Your task to perform on an android device: Open network settings Image 0: 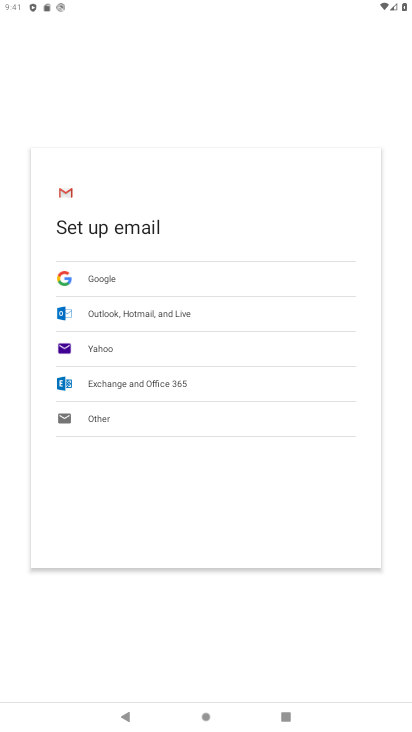
Step 0: press home button
Your task to perform on an android device: Open network settings Image 1: 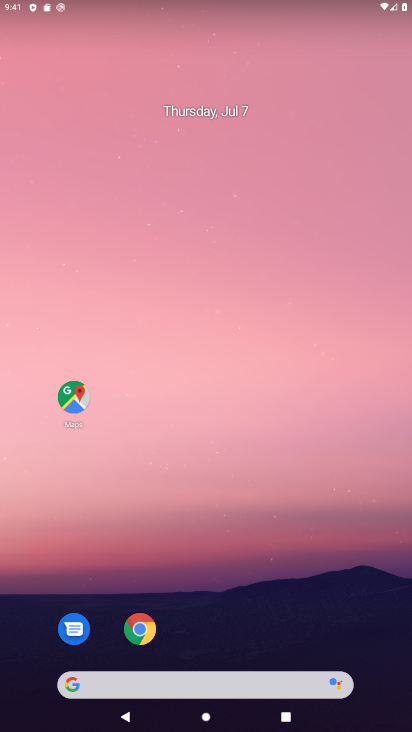
Step 1: drag from (49, 636) to (250, 109)
Your task to perform on an android device: Open network settings Image 2: 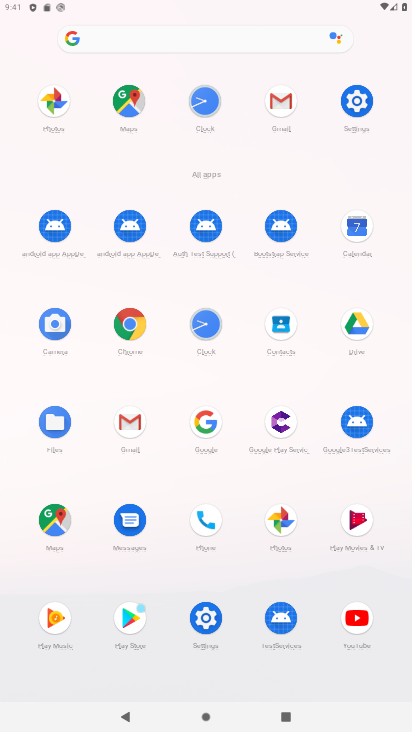
Step 2: click (193, 623)
Your task to perform on an android device: Open network settings Image 3: 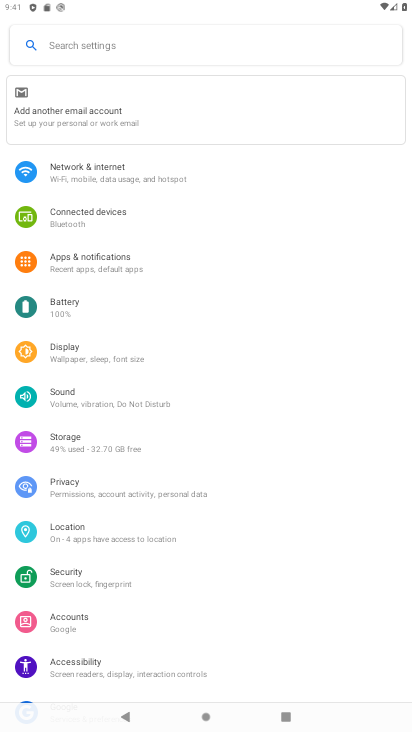
Step 3: click (110, 180)
Your task to perform on an android device: Open network settings Image 4: 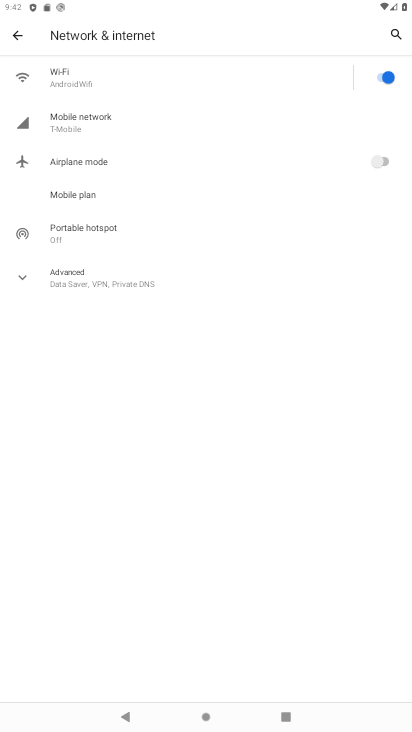
Step 4: task complete